Your task to perform on an android device: add a label to a message in the gmail app Image 0: 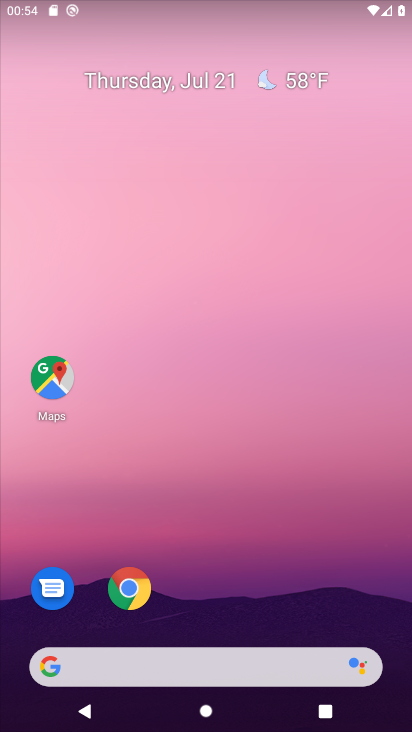
Step 0: drag from (191, 607) to (198, 248)
Your task to perform on an android device: add a label to a message in the gmail app Image 1: 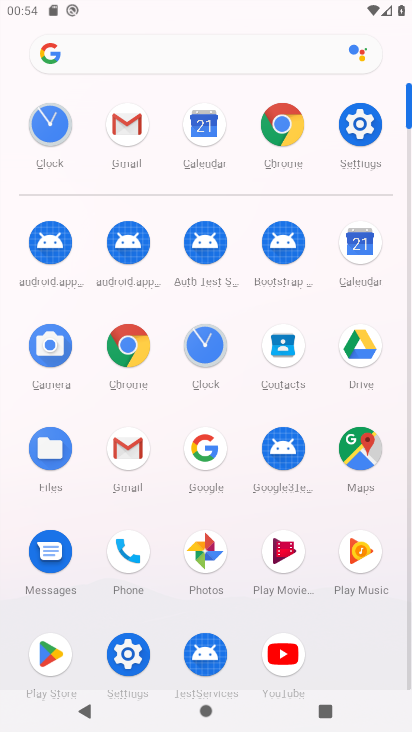
Step 1: click (133, 465)
Your task to perform on an android device: add a label to a message in the gmail app Image 2: 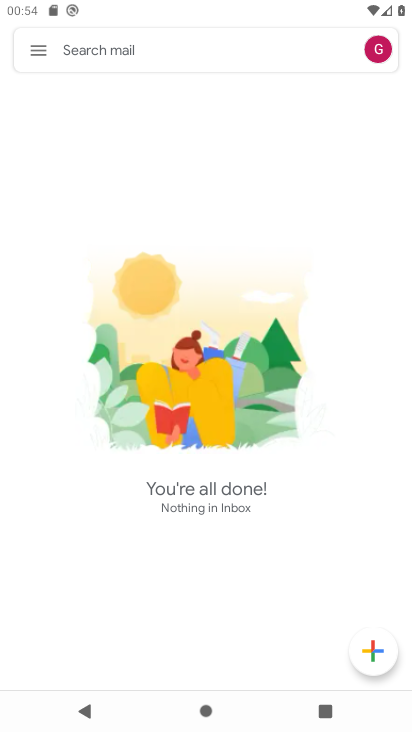
Step 2: click (39, 41)
Your task to perform on an android device: add a label to a message in the gmail app Image 3: 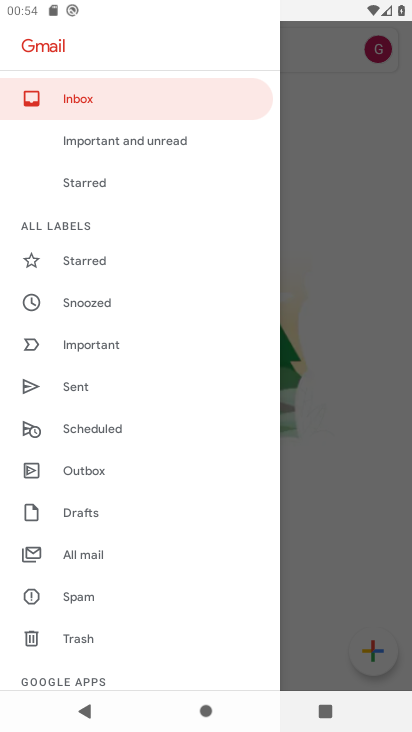
Step 3: click (394, 348)
Your task to perform on an android device: add a label to a message in the gmail app Image 4: 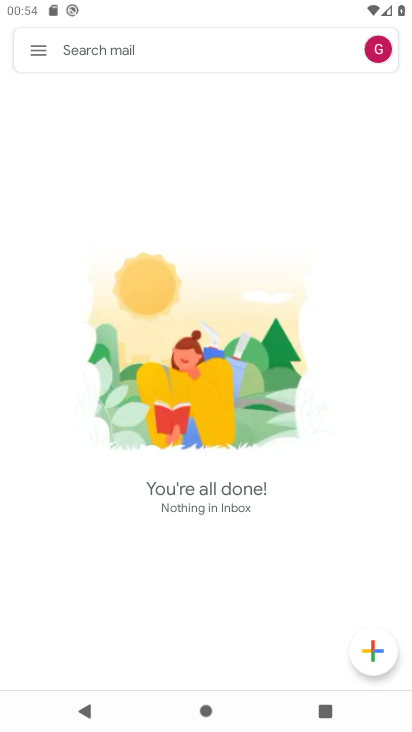
Step 4: task complete